Your task to perform on an android device: Open network settings Image 0: 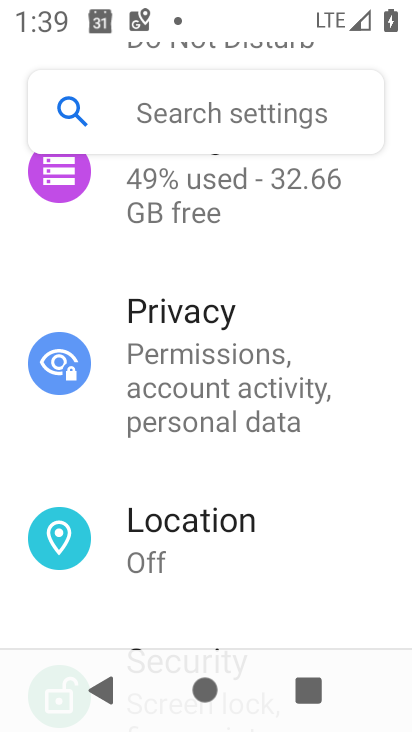
Step 0: drag from (338, 253) to (348, 393)
Your task to perform on an android device: Open network settings Image 1: 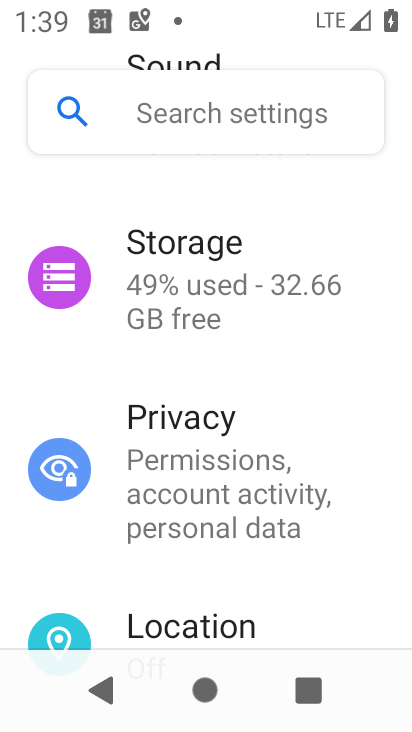
Step 1: drag from (351, 221) to (370, 361)
Your task to perform on an android device: Open network settings Image 2: 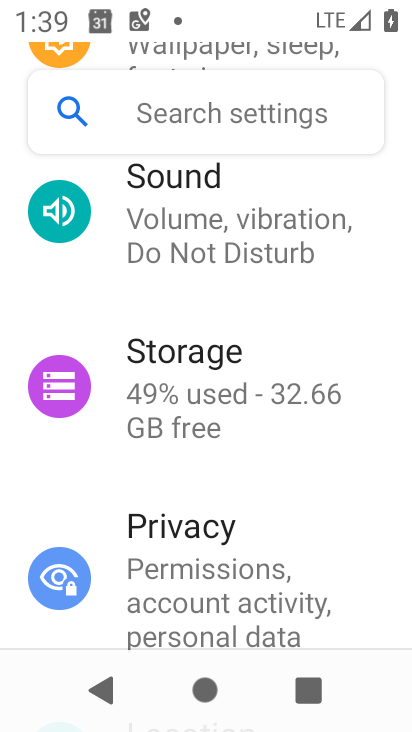
Step 2: drag from (364, 207) to (369, 348)
Your task to perform on an android device: Open network settings Image 3: 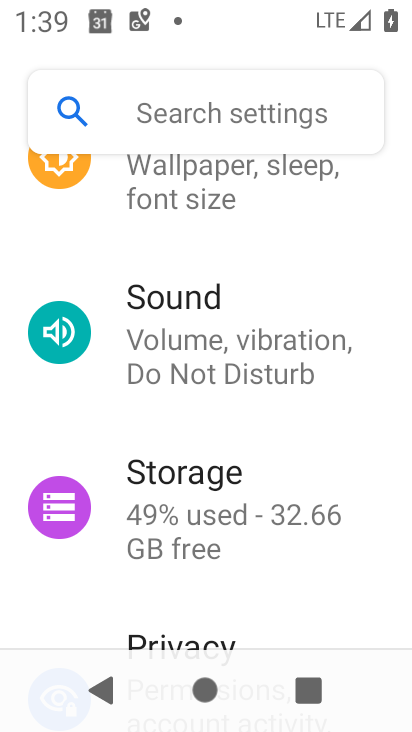
Step 3: drag from (365, 210) to (372, 338)
Your task to perform on an android device: Open network settings Image 4: 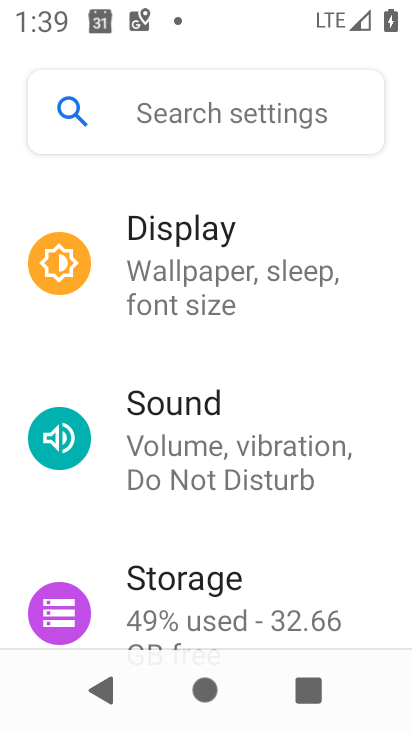
Step 4: drag from (373, 218) to (372, 346)
Your task to perform on an android device: Open network settings Image 5: 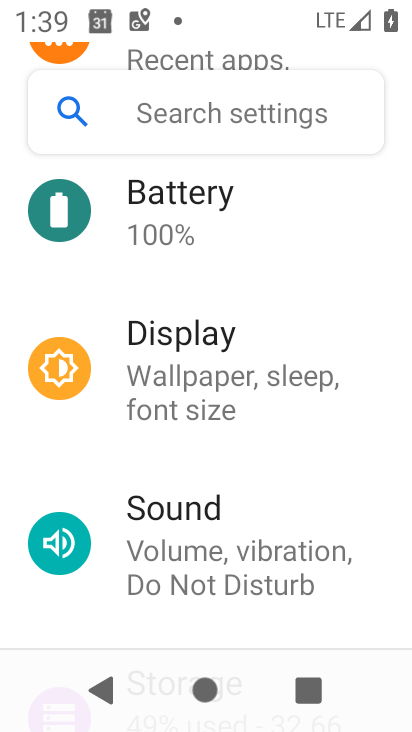
Step 5: drag from (354, 210) to (364, 352)
Your task to perform on an android device: Open network settings Image 6: 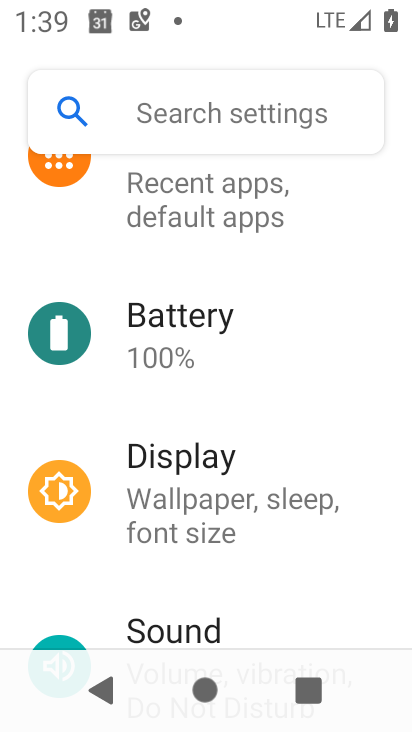
Step 6: drag from (350, 202) to (358, 305)
Your task to perform on an android device: Open network settings Image 7: 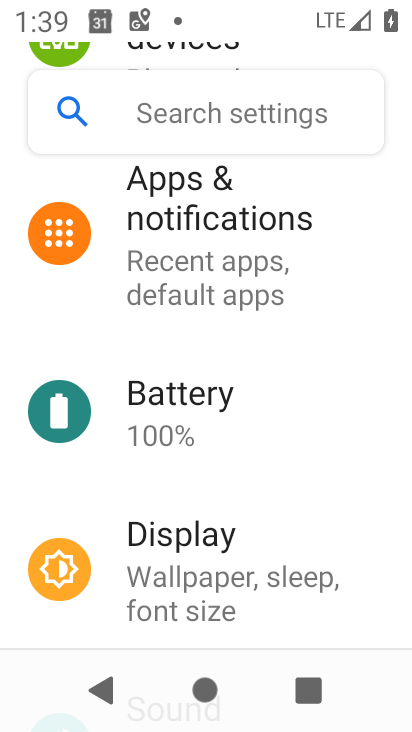
Step 7: drag from (356, 193) to (360, 324)
Your task to perform on an android device: Open network settings Image 8: 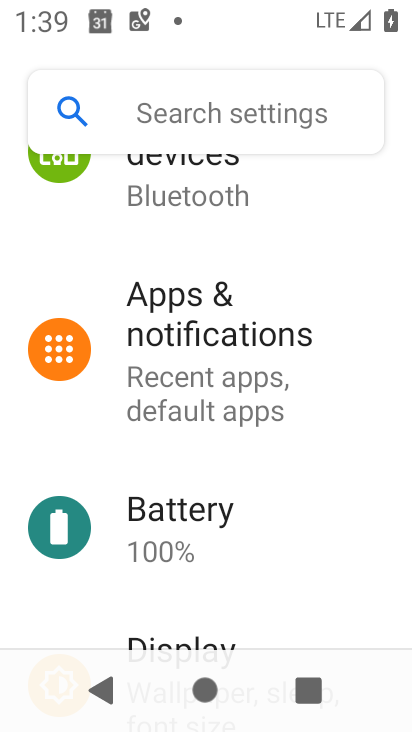
Step 8: drag from (368, 176) to (349, 321)
Your task to perform on an android device: Open network settings Image 9: 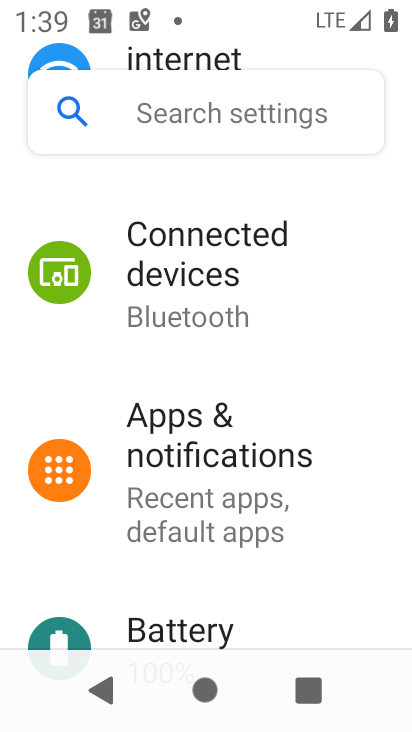
Step 9: drag from (354, 183) to (348, 320)
Your task to perform on an android device: Open network settings Image 10: 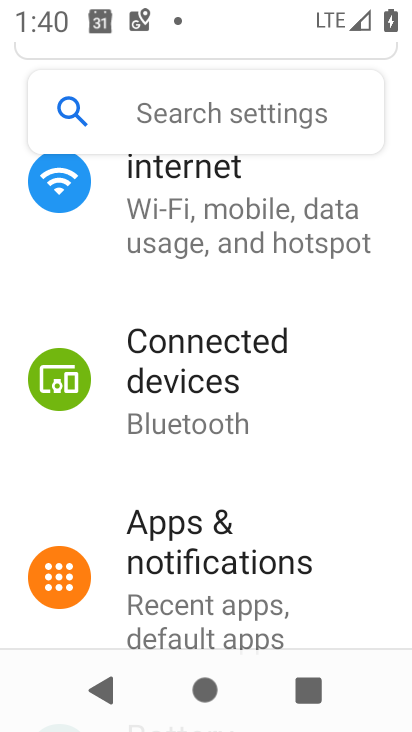
Step 10: drag from (368, 181) to (369, 313)
Your task to perform on an android device: Open network settings Image 11: 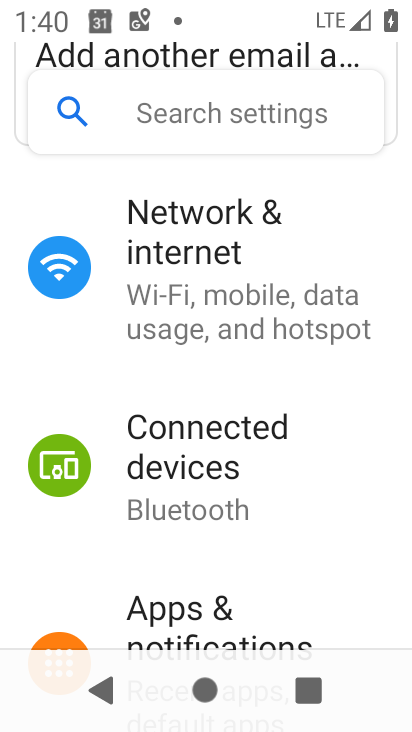
Step 11: drag from (370, 217) to (361, 364)
Your task to perform on an android device: Open network settings Image 12: 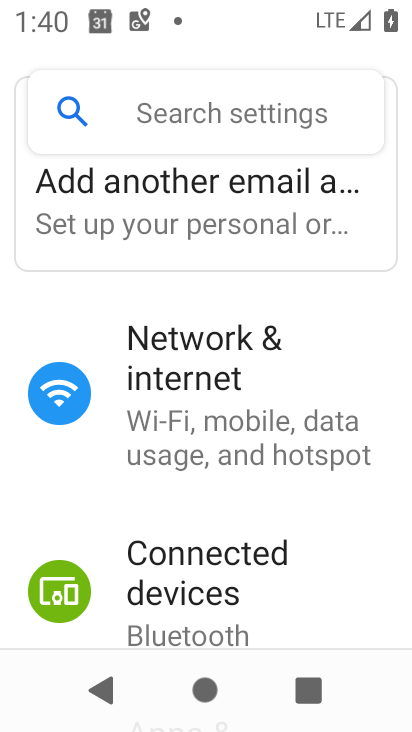
Step 12: click (244, 362)
Your task to perform on an android device: Open network settings Image 13: 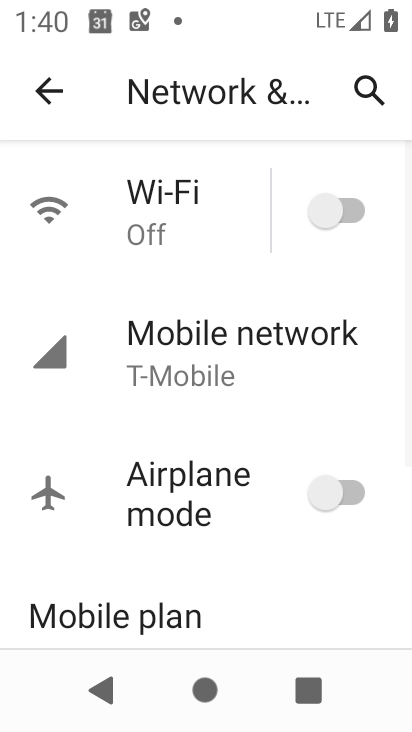
Step 13: task complete